Your task to perform on an android device: Open Google Maps Image 0: 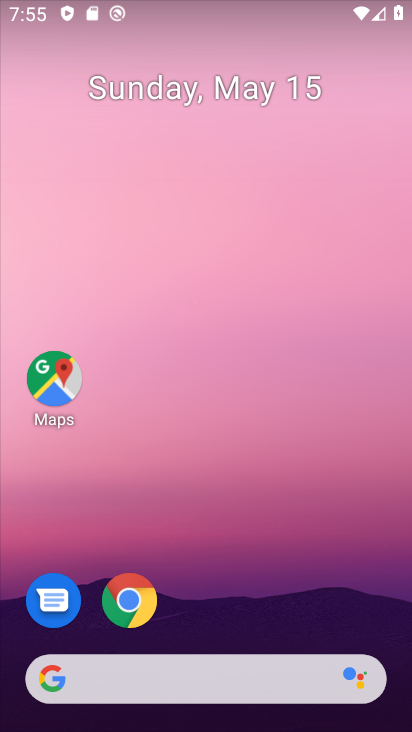
Step 0: click (56, 396)
Your task to perform on an android device: Open Google Maps Image 1: 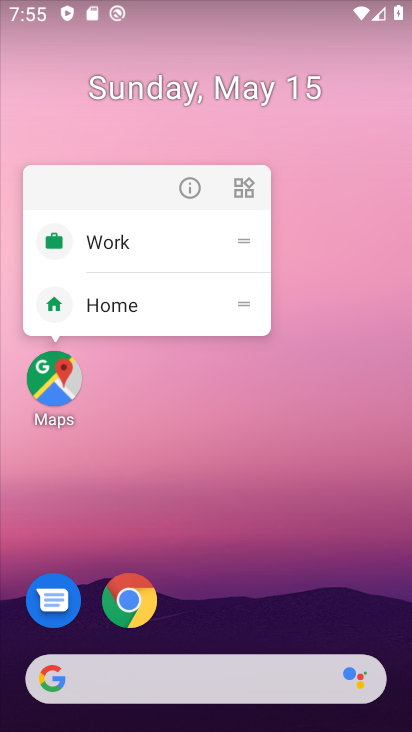
Step 1: click (56, 390)
Your task to perform on an android device: Open Google Maps Image 2: 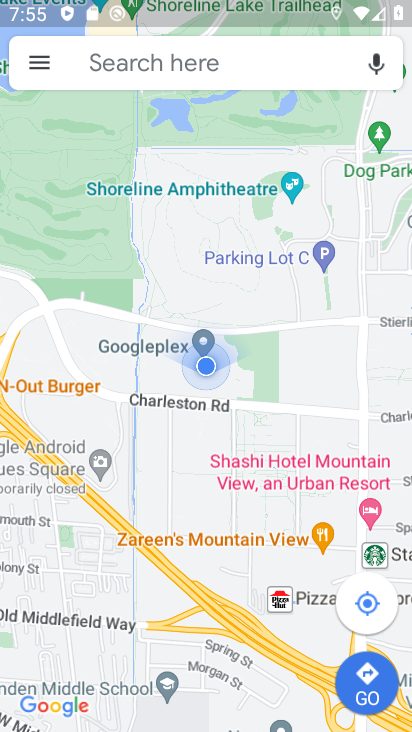
Step 2: task complete